Your task to perform on an android device: turn smart compose on in the gmail app Image 0: 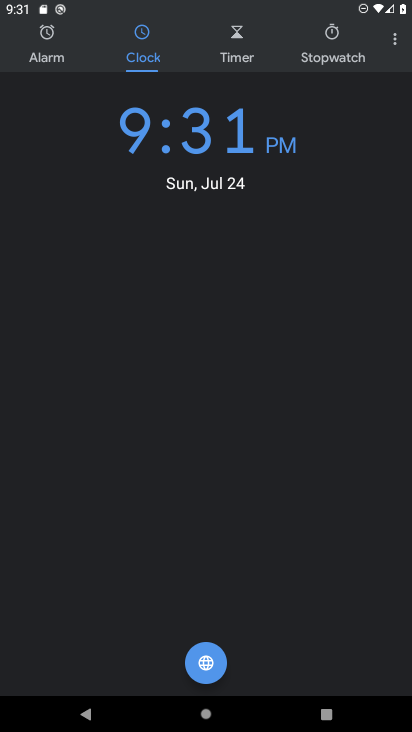
Step 0: drag from (154, 547) to (154, 340)
Your task to perform on an android device: turn smart compose on in the gmail app Image 1: 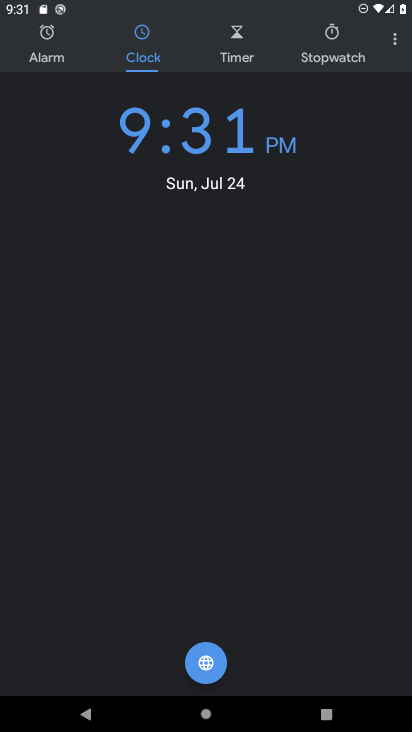
Step 1: press home button
Your task to perform on an android device: turn smart compose on in the gmail app Image 2: 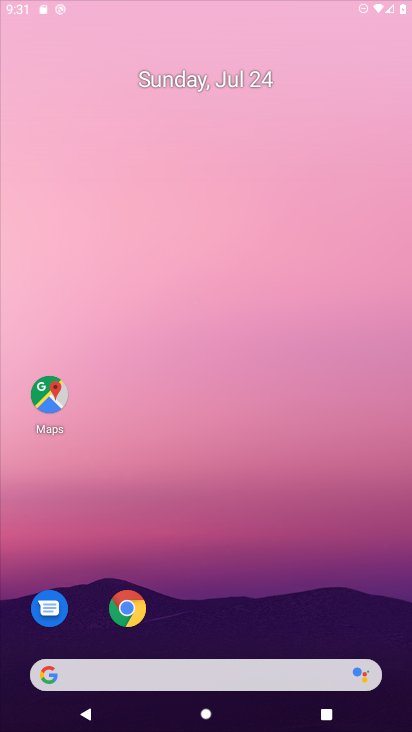
Step 2: drag from (115, 560) to (187, 143)
Your task to perform on an android device: turn smart compose on in the gmail app Image 3: 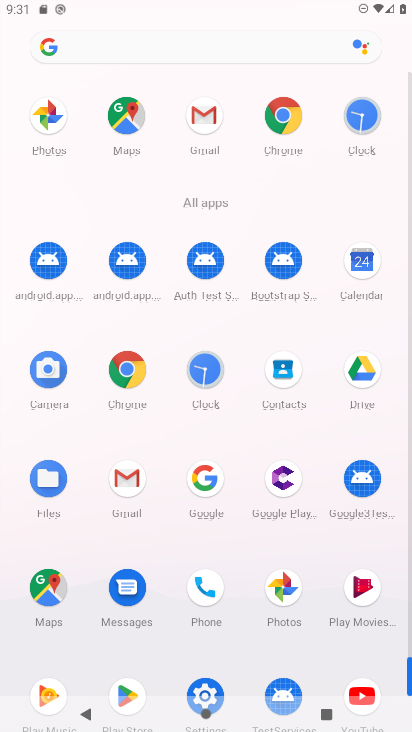
Step 3: click (131, 474)
Your task to perform on an android device: turn smart compose on in the gmail app Image 4: 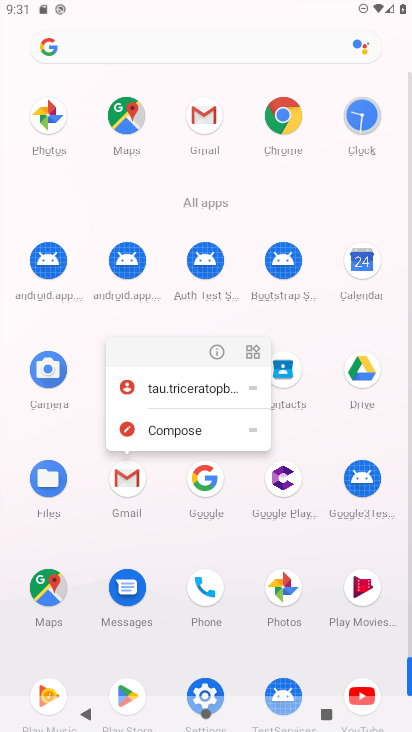
Step 4: click (210, 353)
Your task to perform on an android device: turn smart compose on in the gmail app Image 5: 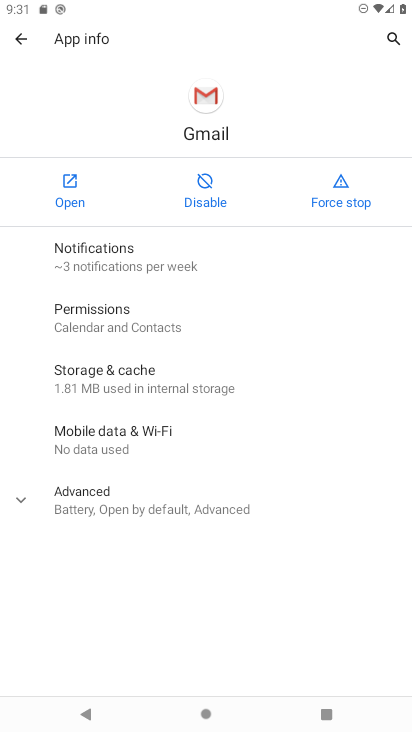
Step 5: click (69, 196)
Your task to perform on an android device: turn smart compose on in the gmail app Image 6: 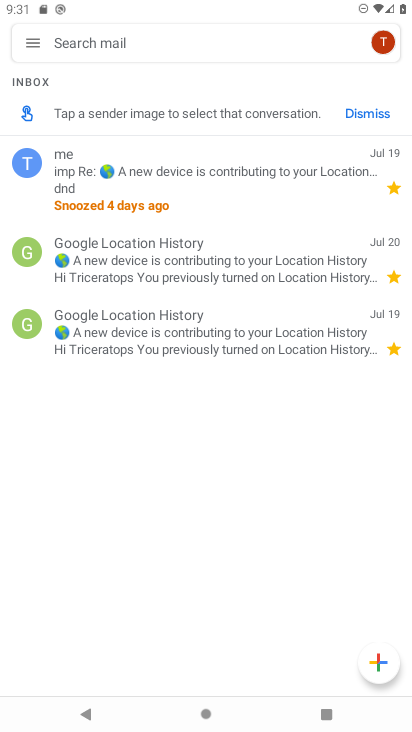
Step 6: click (33, 45)
Your task to perform on an android device: turn smart compose on in the gmail app Image 7: 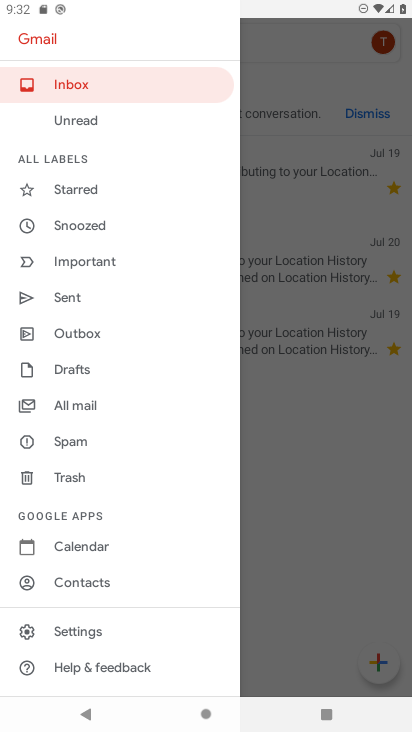
Step 7: click (71, 629)
Your task to perform on an android device: turn smart compose on in the gmail app Image 8: 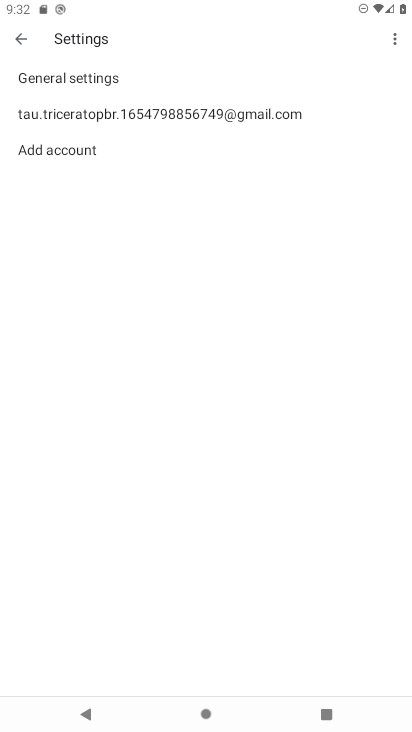
Step 8: drag from (112, 470) to (115, 285)
Your task to perform on an android device: turn smart compose on in the gmail app Image 9: 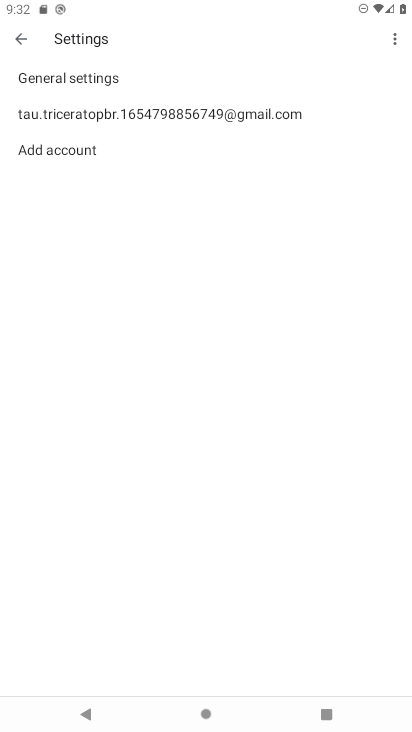
Step 9: click (119, 109)
Your task to perform on an android device: turn smart compose on in the gmail app Image 10: 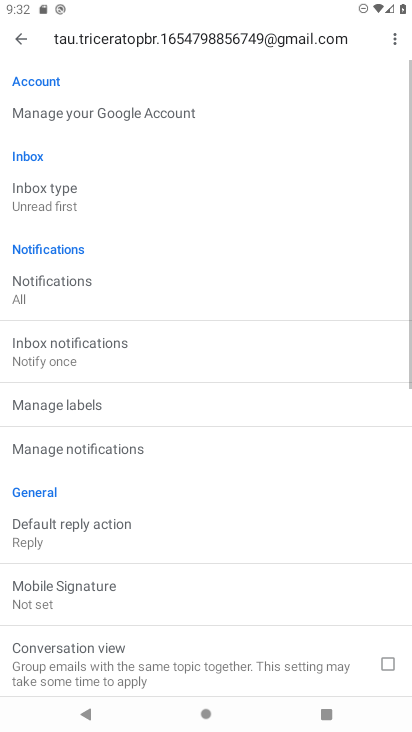
Step 10: task complete